Your task to perform on an android device: see tabs open on other devices in the chrome app Image 0: 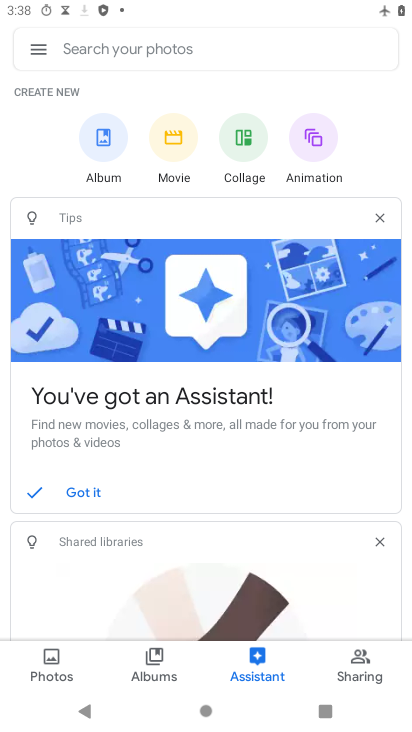
Step 0: press back button
Your task to perform on an android device: see tabs open on other devices in the chrome app Image 1: 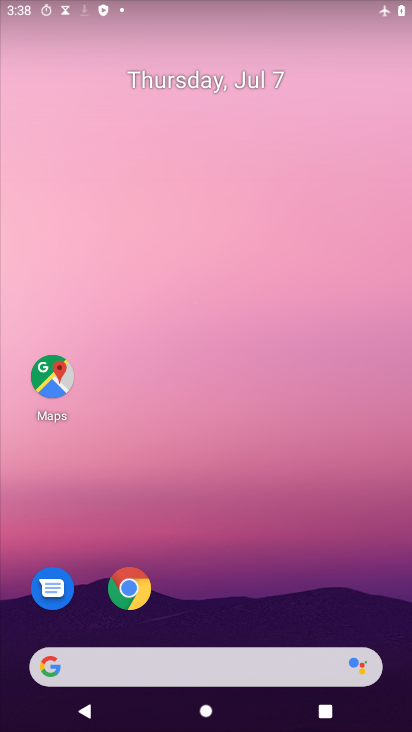
Step 1: drag from (272, 645) to (213, 186)
Your task to perform on an android device: see tabs open on other devices in the chrome app Image 2: 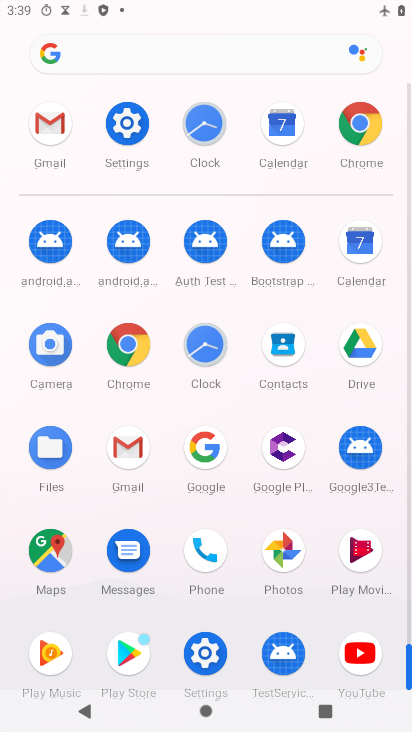
Step 2: click (118, 345)
Your task to perform on an android device: see tabs open on other devices in the chrome app Image 3: 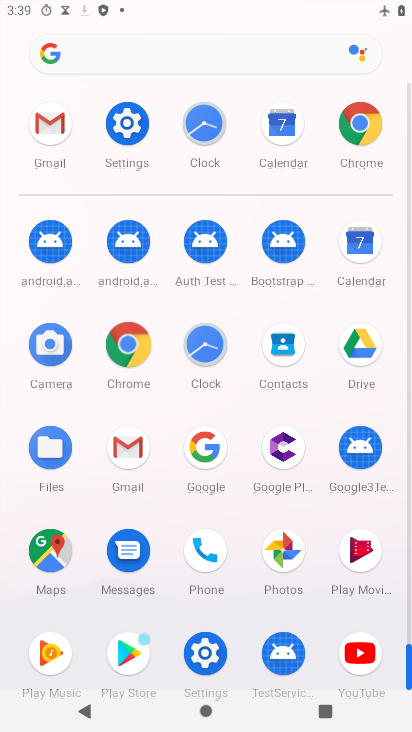
Step 3: click (129, 338)
Your task to perform on an android device: see tabs open on other devices in the chrome app Image 4: 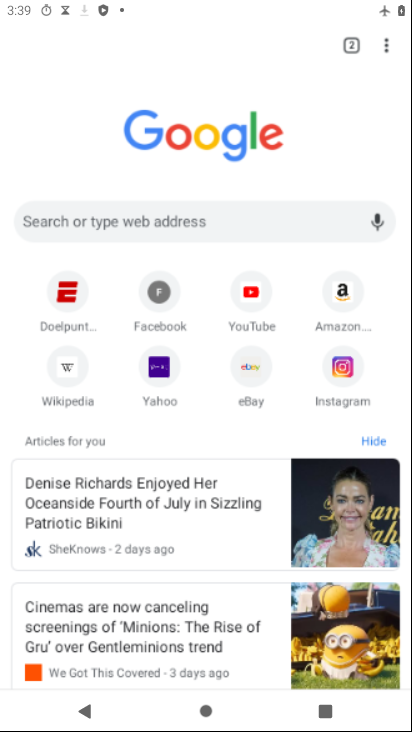
Step 4: click (129, 338)
Your task to perform on an android device: see tabs open on other devices in the chrome app Image 5: 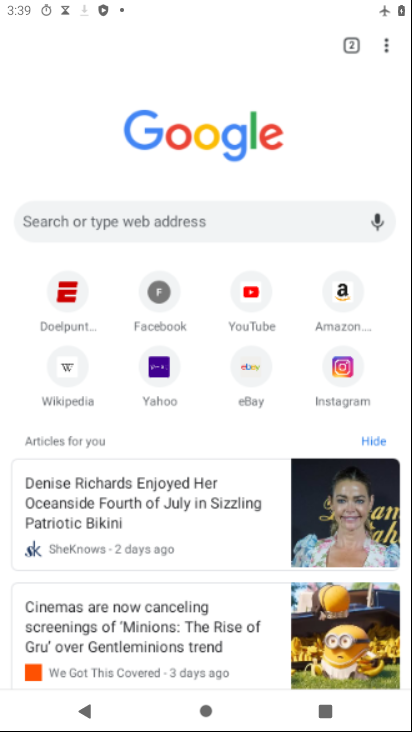
Step 5: click (134, 338)
Your task to perform on an android device: see tabs open on other devices in the chrome app Image 6: 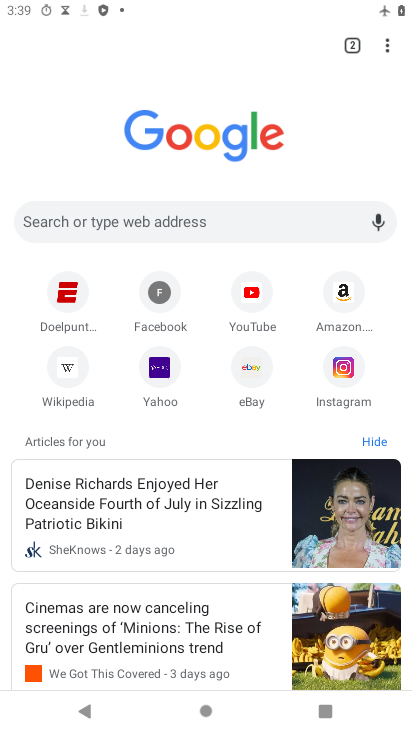
Step 6: drag from (397, 33) to (241, 271)
Your task to perform on an android device: see tabs open on other devices in the chrome app Image 7: 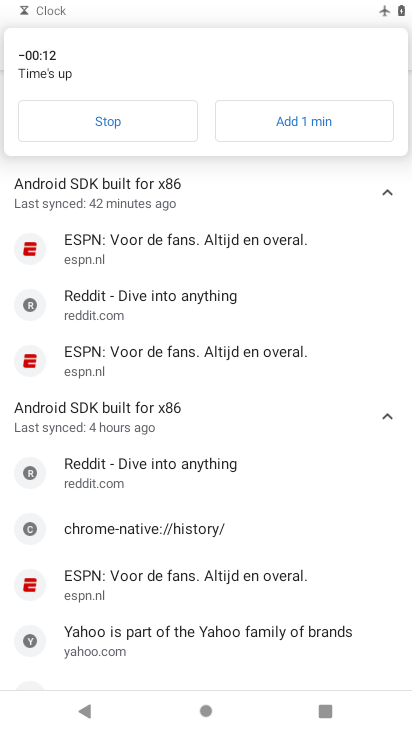
Step 7: click (106, 118)
Your task to perform on an android device: see tabs open on other devices in the chrome app Image 8: 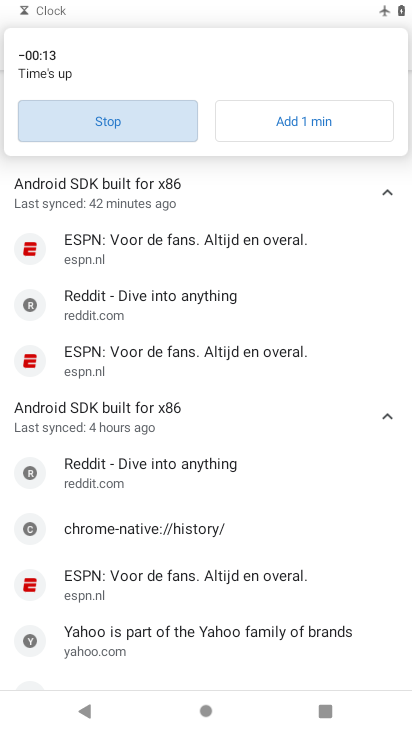
Step 8: click (108, 119)
Your task to perform on an android device: see tabs open on other devices in the chrome app Image 9: 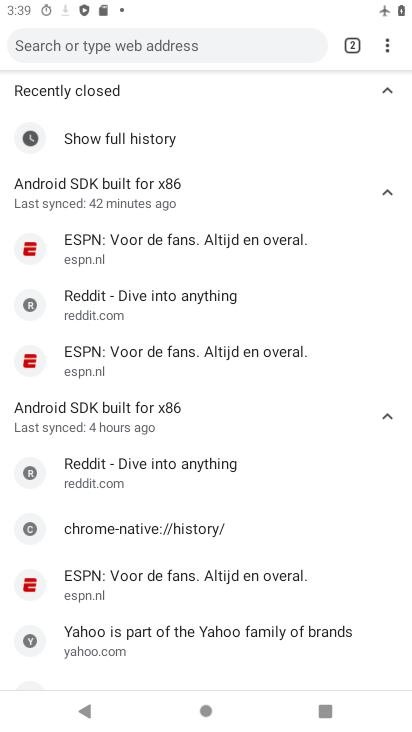
Step 9: drag from (389, 46) to (226, 273)
Your task to perform on an android device: see tabs open on other devices in the chrome app Image 10: 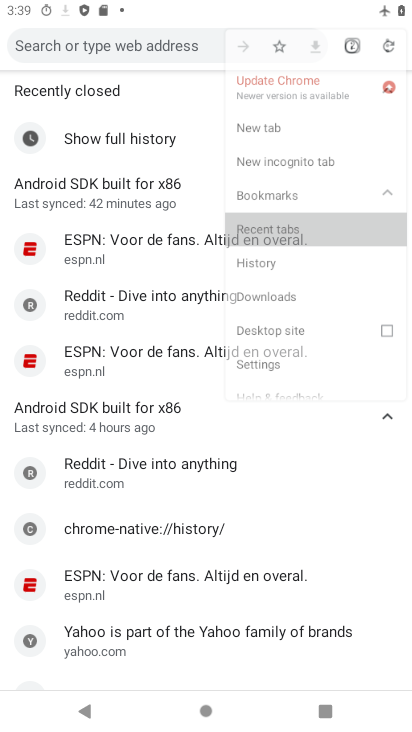
Step 10: click (226, 272)
Your task to perform on an android device: see tabs open on other devices in the chrome app Image 11: 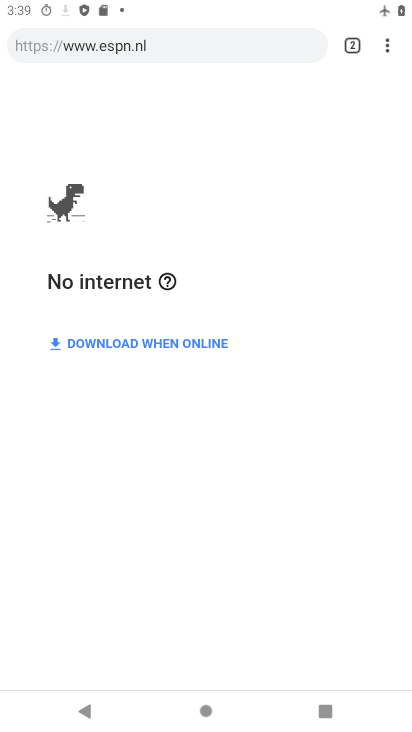
Step 11: task complete